Your task to perform on an android device: Open the map Image 0: 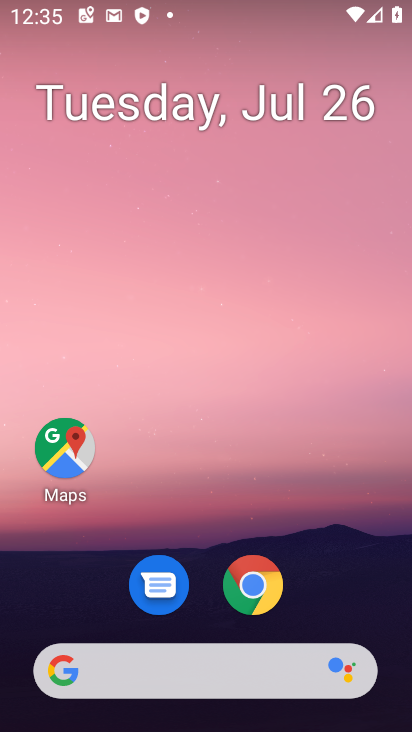
Step 0: click (59, 452)
Your task to perform on an android device: Open the map Image 1: 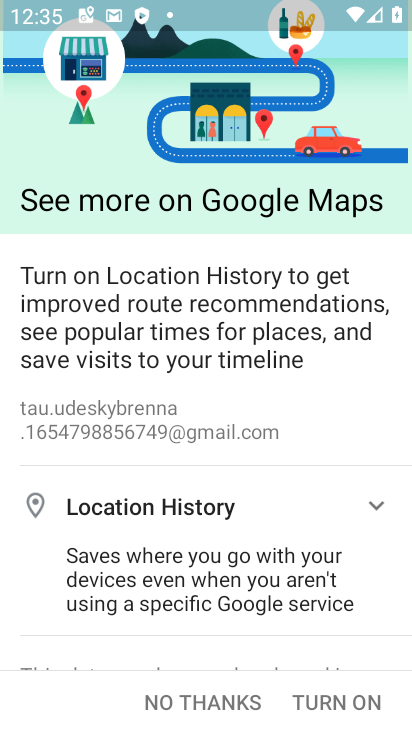
Step 1: click (180, 695)
Your task to perform on an android device: Open the map Image 2: 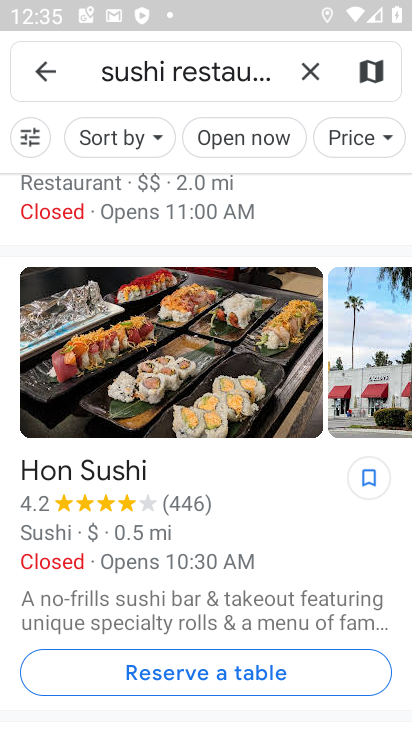
Step 2: click (307, 68)
Your task to perform on an android device: Open the map Image 3: 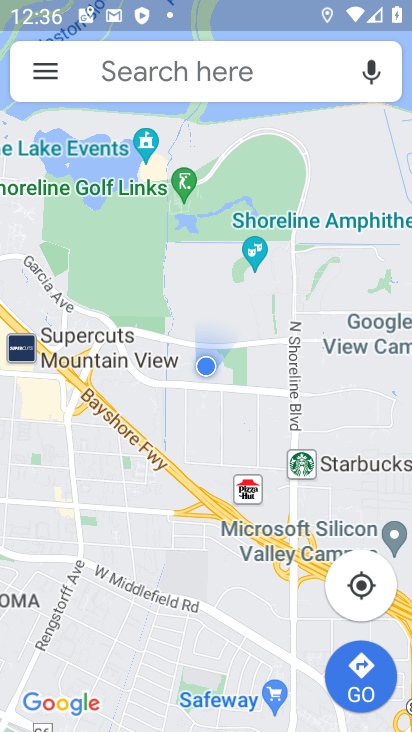
Step 3: task complete